Your task to perform on an android device: When is my next appointment? Image 0: 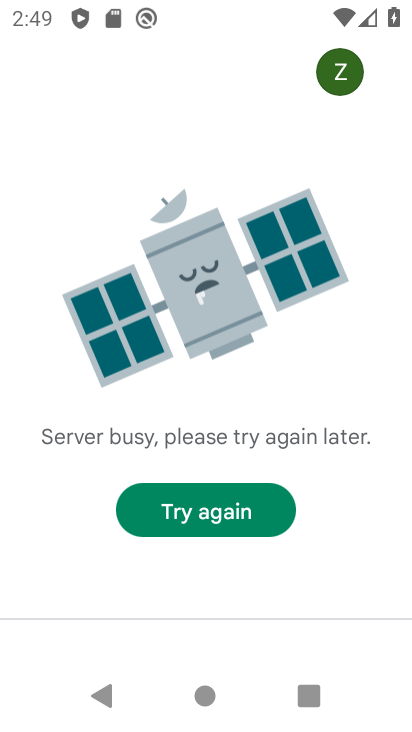
Step 0: press back button
Your task to perform on an android device: When is my next appointment? Image 1: 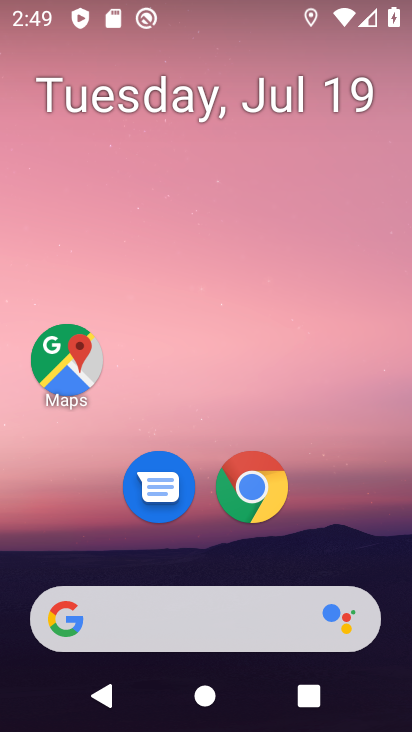
Step 1: drag from (212, 354) to (267, 18)
Your task to perform on an android device: When is my next appointment? Image 2: 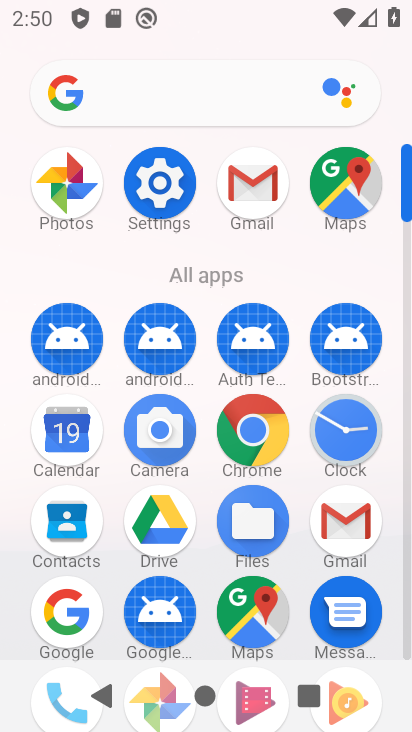
Step 2: click (75, 418)
Your task to perform on an android device: When is my next appointment? Image 3: 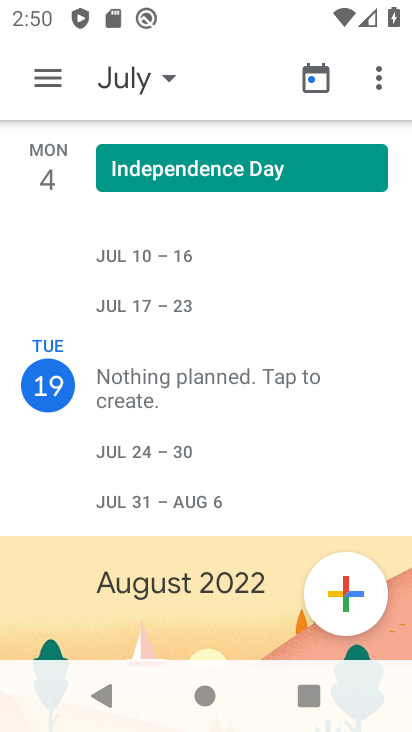
Step 3: task complete